Your task to perform on an android device: see sites visited before in the chrome app Image 0: 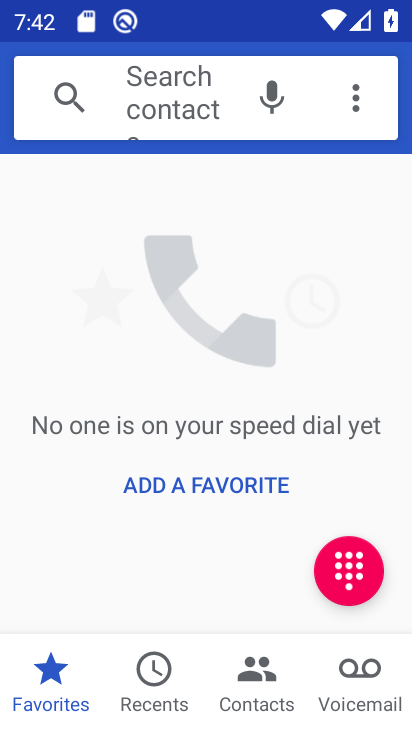
Step 0: press home button
Your task to perform on an android device: see sites visited before in the chrome app Image 1: 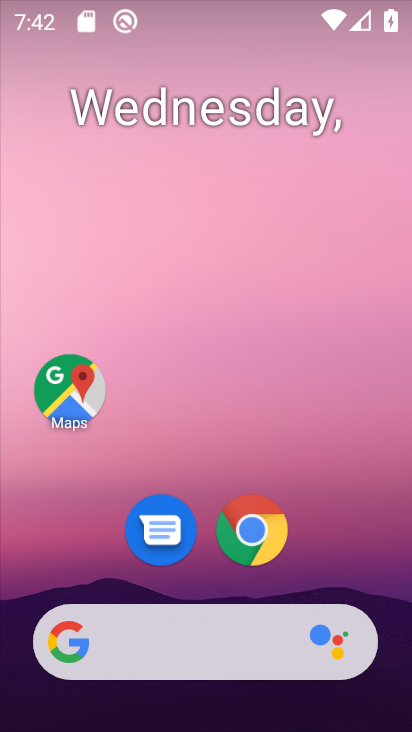
Step 1: drag from (394, 667) to (327, 24)
Your task to perform on an android device: see sites visited before in the chrome app Image 2: 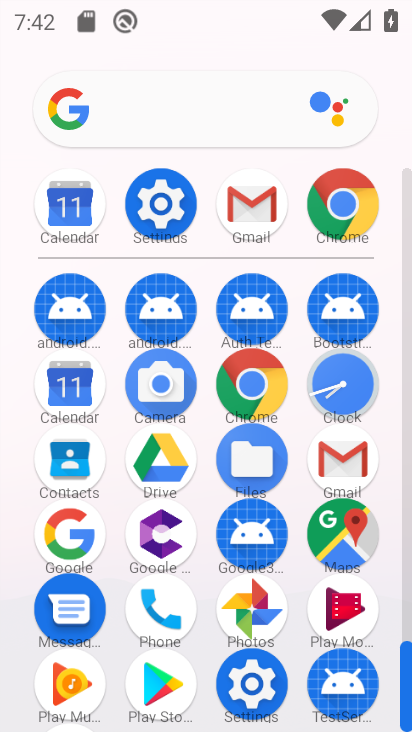
Step 2: click (244, 377)
Your task to perform on an android device: see sites visited before in the chrome app Image 3: 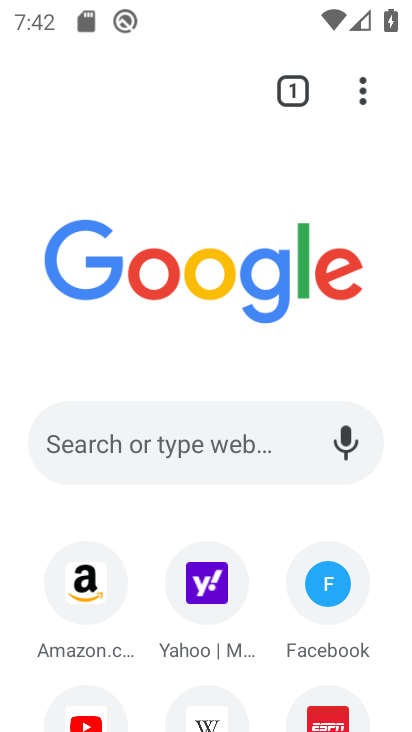
Step 3: click (366, 90)
Your task to perform on an android device: see sites visited before in the chrome app Image 4: 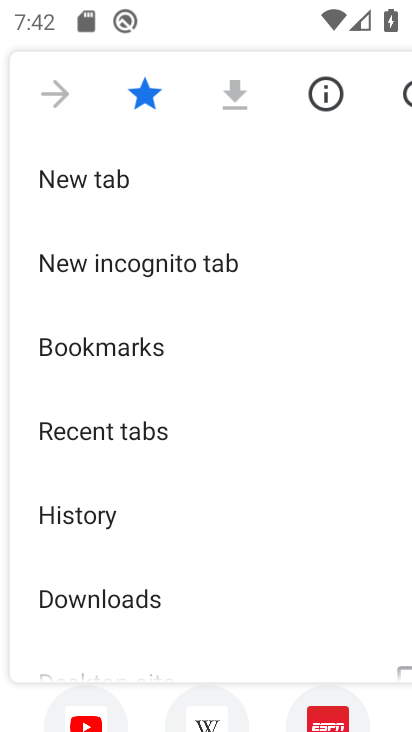
Step 4: click (111, 507)
Your task to perform on an android device: see sites visited before in the chrome app Image 5: 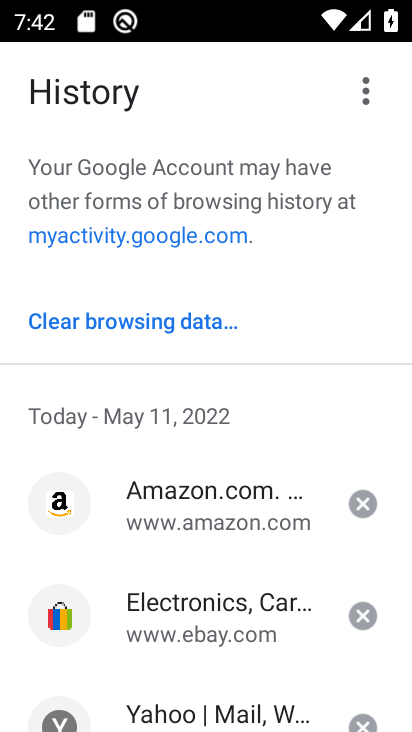
Step 5: click (217, 486)
Your task to perform on an android device: see sites visited before in the chrome app Image 6: 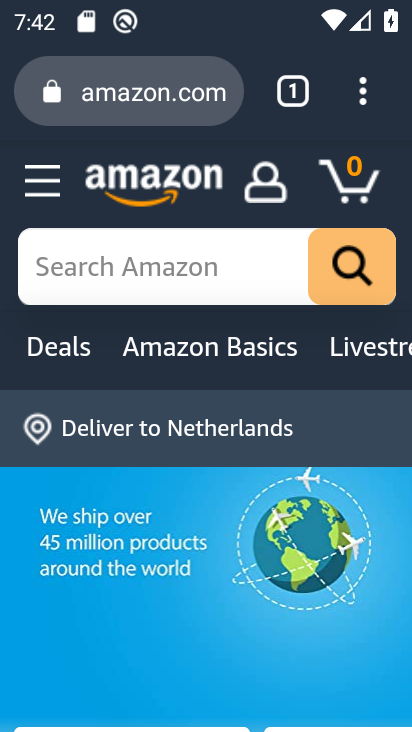
Step 6: task complete